Your task to perform on an android device: open the mobile data screen to see how much data has been used Image 0: 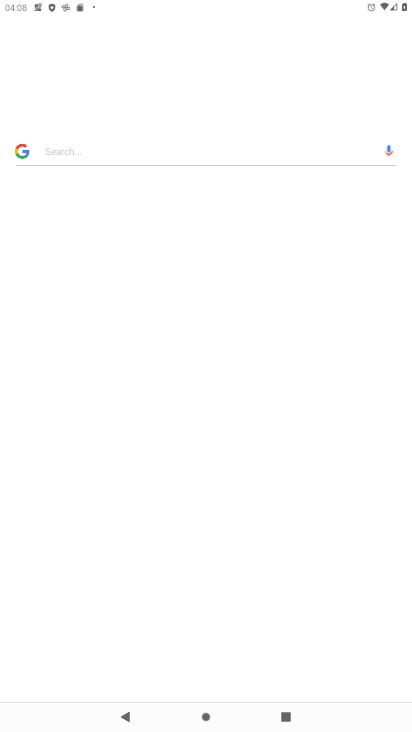
Step 0: drag from (389, 651) to (364, 268)
Your task to perform on an android device: open the mobile data screen to see how much data has been used Image 1: 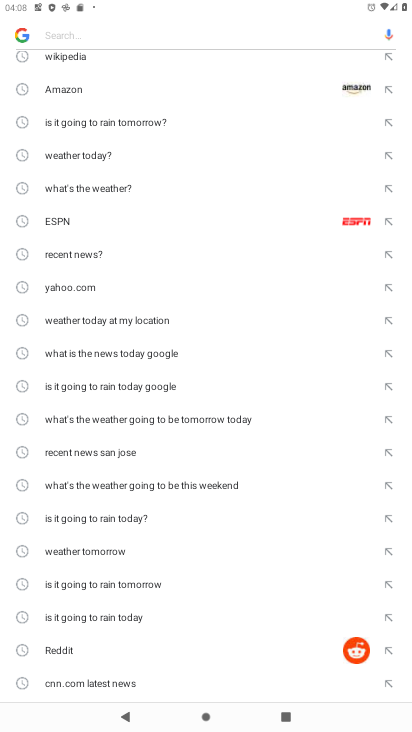
Step 1: press home button
Your task to perform on an android device: open the mobile data screen to see how much data has been used Image 2: 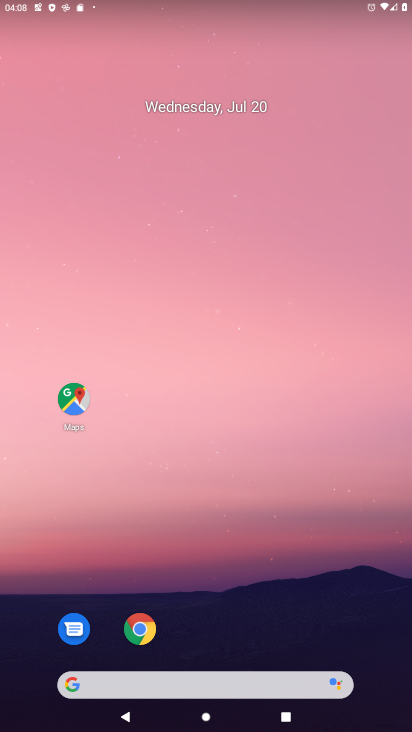
Step 2: drag from (377, 670) to (340, 6)
Your task to perform on an android device: open the mobile data screen to see how much data has been used Image 3: 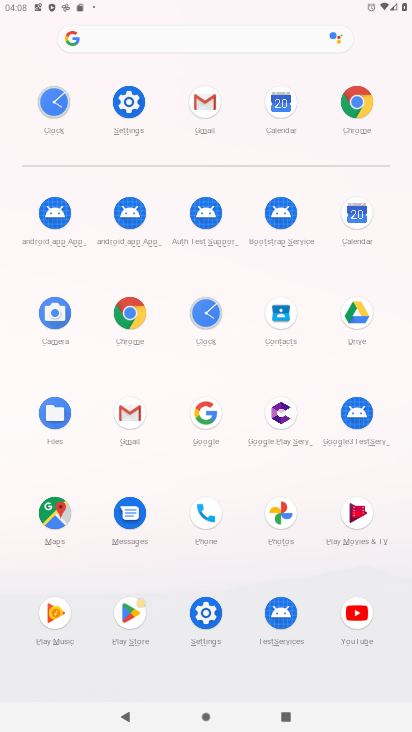
Step 3: click (205, 615)
Your task to perform on an android device: open the mobile data screen to see how much data has been used Image 4: 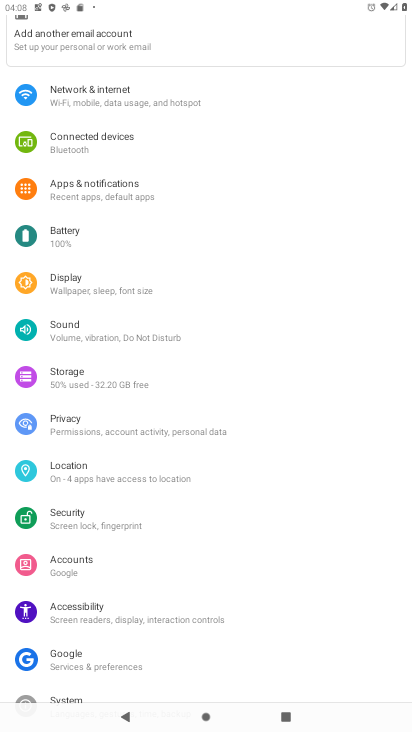
Step 4: click (85, 98)
Your task to perform on an android device: open the mobile data screen to see how much data has been used Image 5: 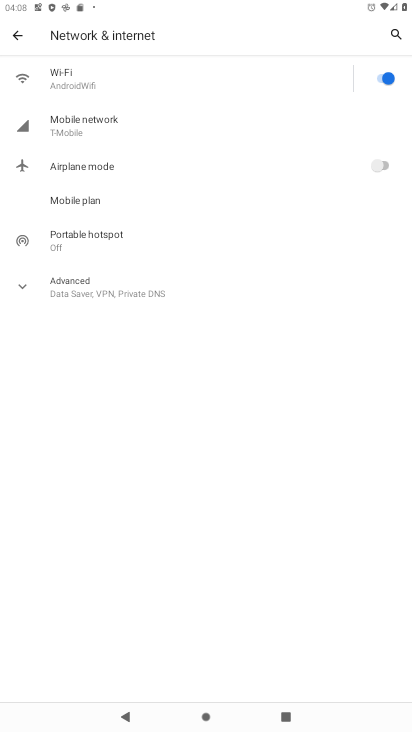
Step 5: click (77, 118)
Your task to perform on an android device: open the mobile data screen to see how much data has been used Image 6: 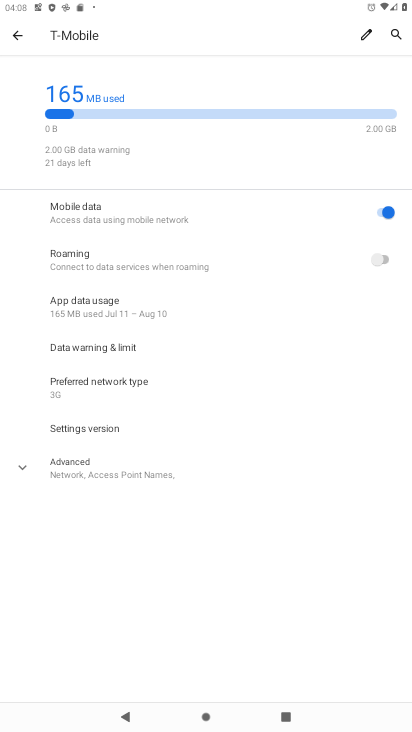
Step 6: task complete